Your task to perform on an android device: Is it going to rain today? Image 0: 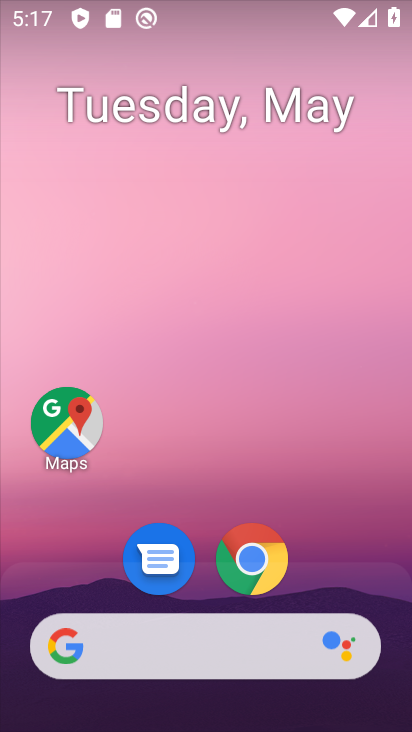
Step 0: click (189, 659)
Your task to perform on an android device: Is it going to rain today? Image 1: 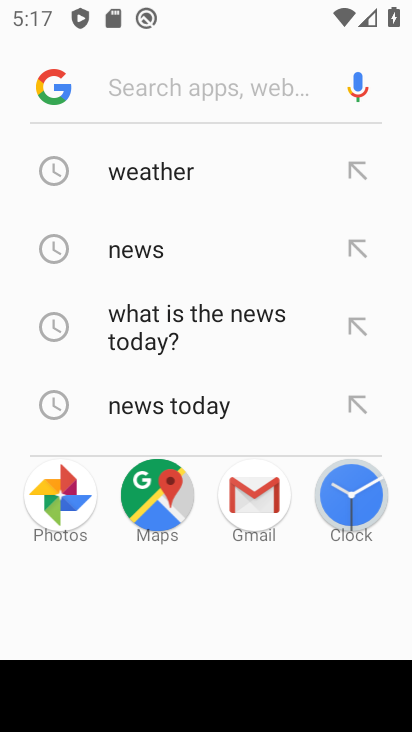
Step 1: click (166, 173)
Your task to perform on an android device: Is it going to rain today? Image 2: 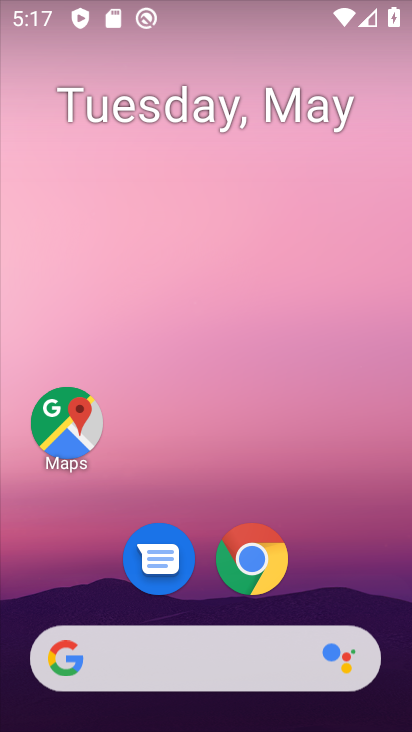
Step 2: click (214, 659)
Your task to perform on an android device: Is it going to rain today? Image 3: 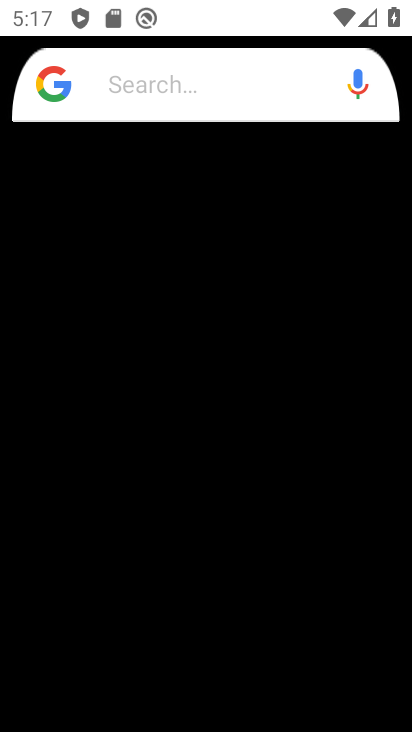
Step 3: click (200, 96)
Your task to perform on an android device: Is it going to rain today? Image 4: 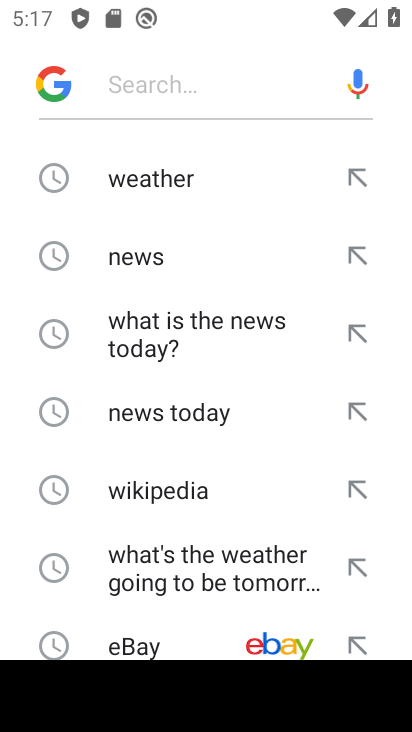
Step 4: click (154, 185)
Your task to perform on an android device: Is it going to rain today? Image 5: 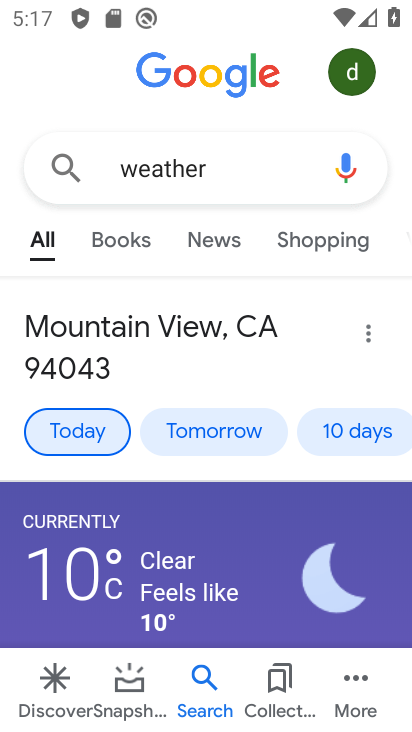
Step 5: task complete